Your task to perform on an android device: Open the calendar app, open the side menu, and click the "Day" option Image 0: 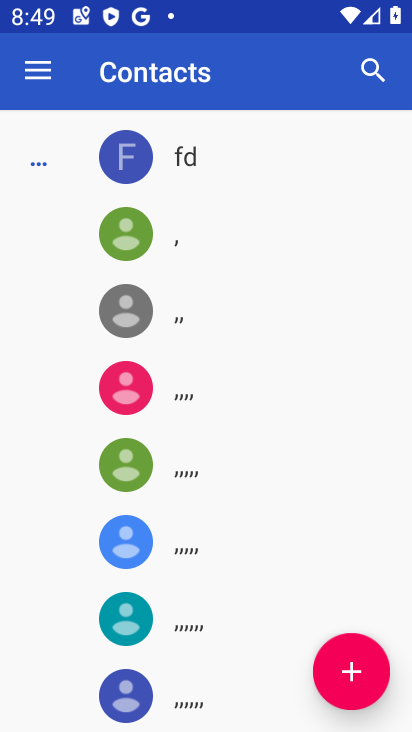
Step 0: press home button
Your task to perform on an android device: Open the calendar app, open the side menu, and click the "Day" option Image 1: 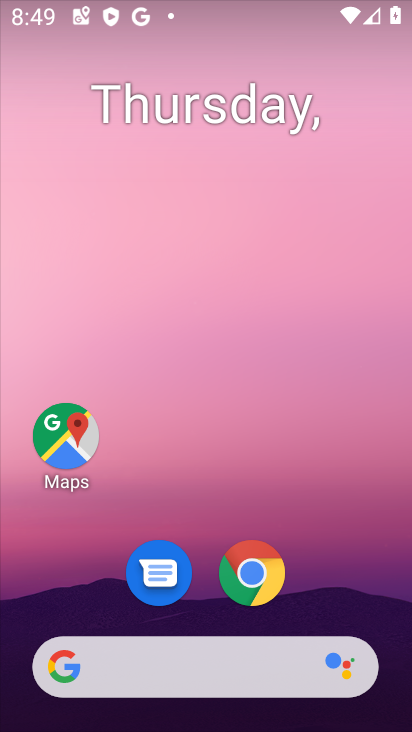
Step 1: drag from (371, 596) to (332, 182)
Your task to perform on an android device: Open the calendar app, open the side menu, and click the "Day" option Image 2: 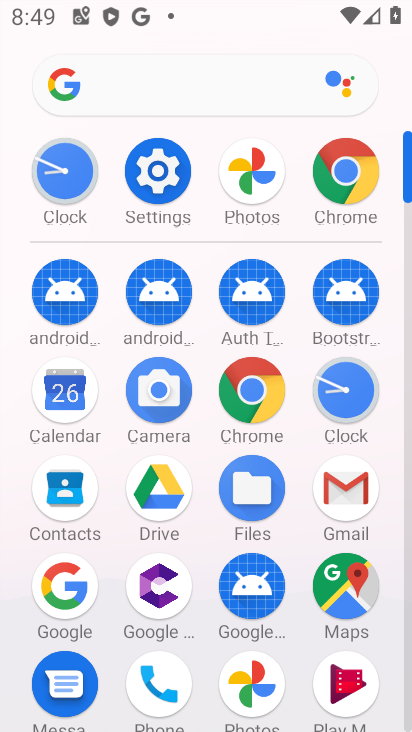
Step 2: click (83, 396)
Your task to perform on an android device: Open the calendar app, open the side menu, and click the "Day" option Image 3: 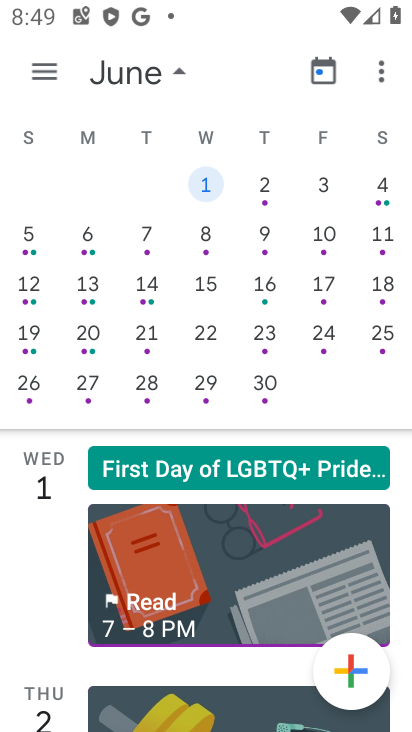
Step 3: drag from (11, 342) to (406, 338)
Your task to perform on an android device: Open the calendar app, open the side menu, and click the "Day" option Image 4: 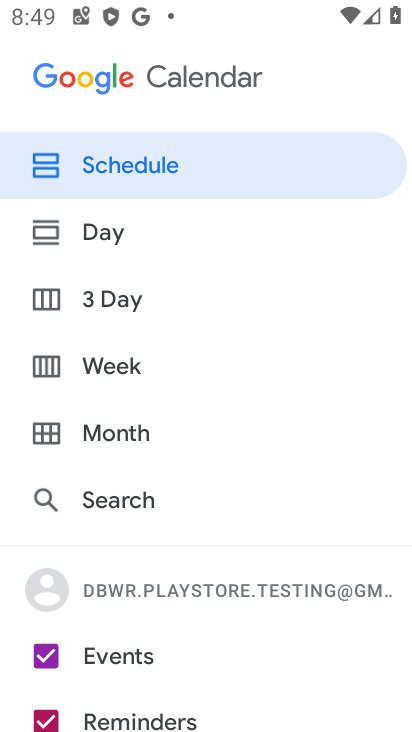
Step 4: drag from (349, 341) to (6, 337)
Your task to perform on an android device: Open the calendar app, open the side menu, and click the "Day" option Image 5: 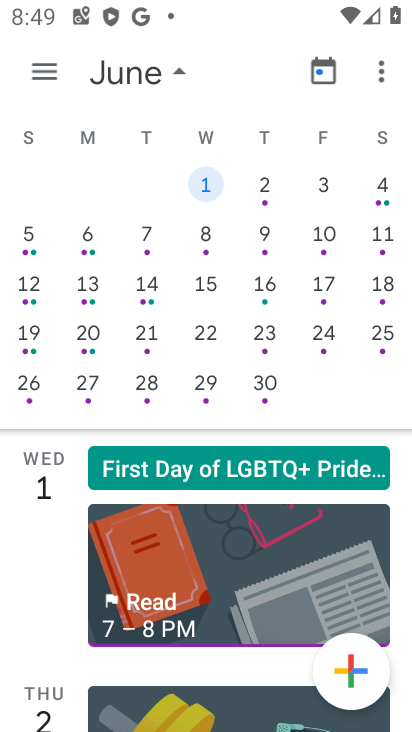
Step 5: drag from (79, 306) to (403, 306)
Your task to perform on an android device: Open the calendar app, open the side menu, and click the "Day" option Image 6: 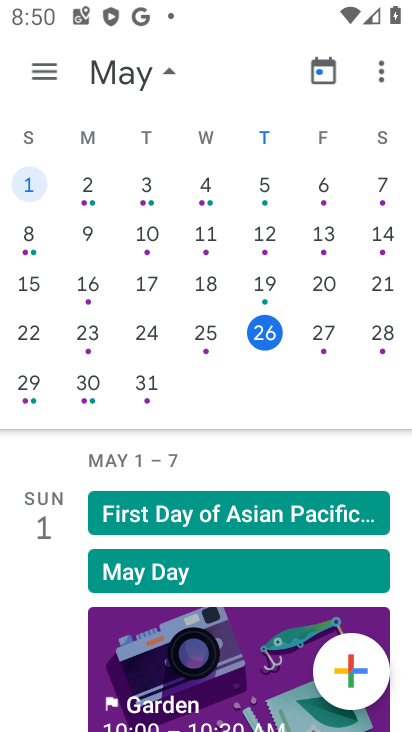
Step 6: click (319, 336)
Your task to perform on an android device: Open the calendar app, open the side menu, and click the "Day" option Image 7: 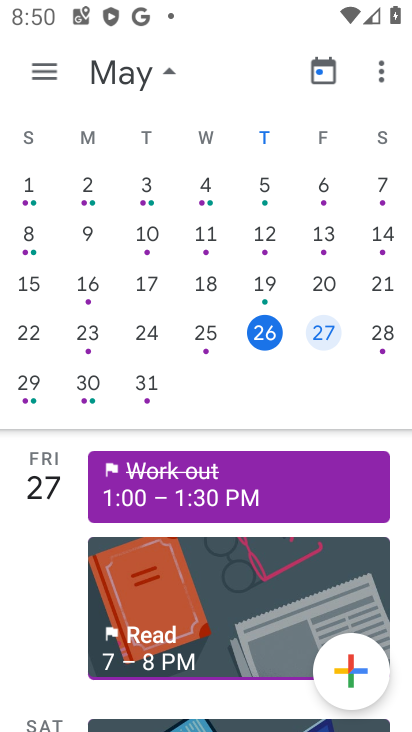
Step 7: task complete